Your task to perform on an android device: toggle notification dots Image 0: 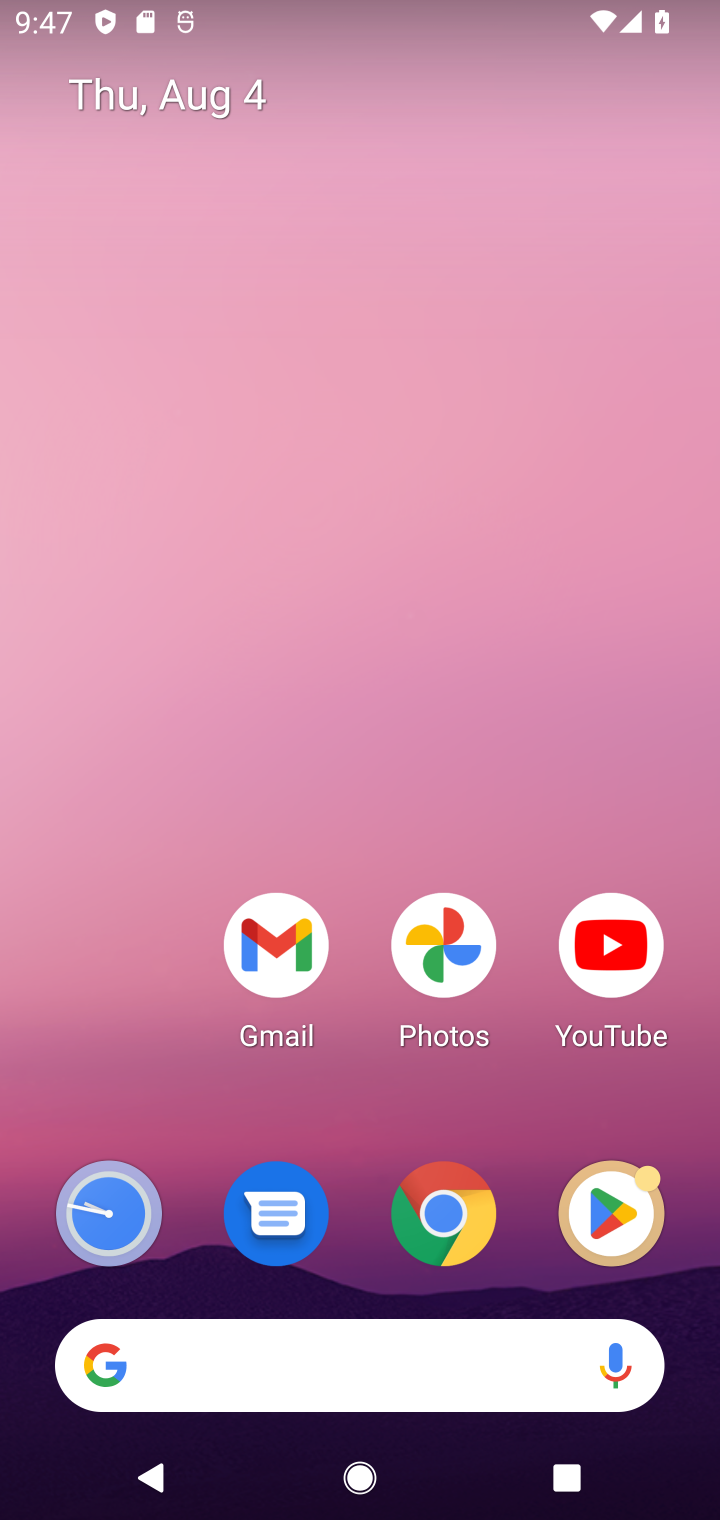
Step 0: drag from (370, 752) to (436, 167)
Your task to perform on an android device: toggle notification dots Image 1: 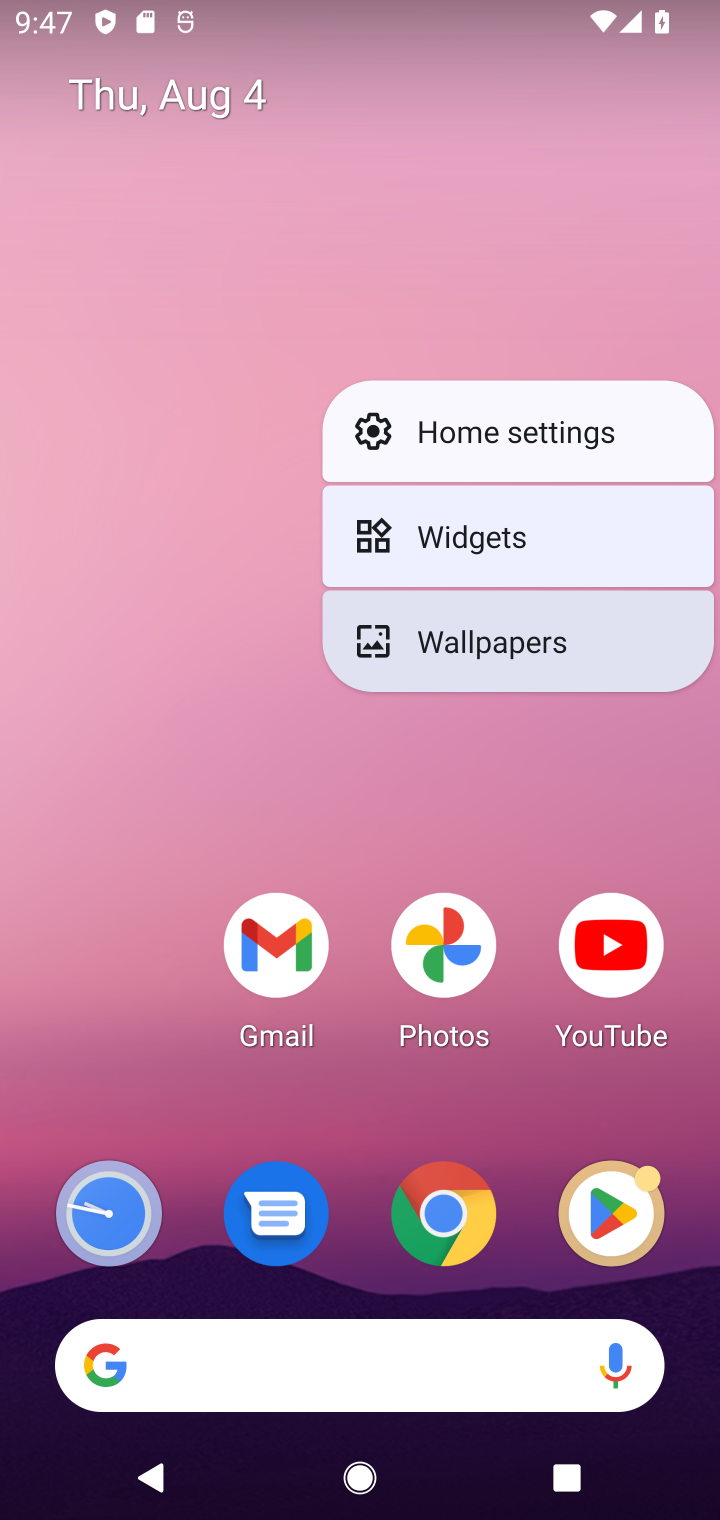
Step 1: drag from (344, 1127) to (280, 66)
Your task to perform on an android device: toggle notification dots Image 2: 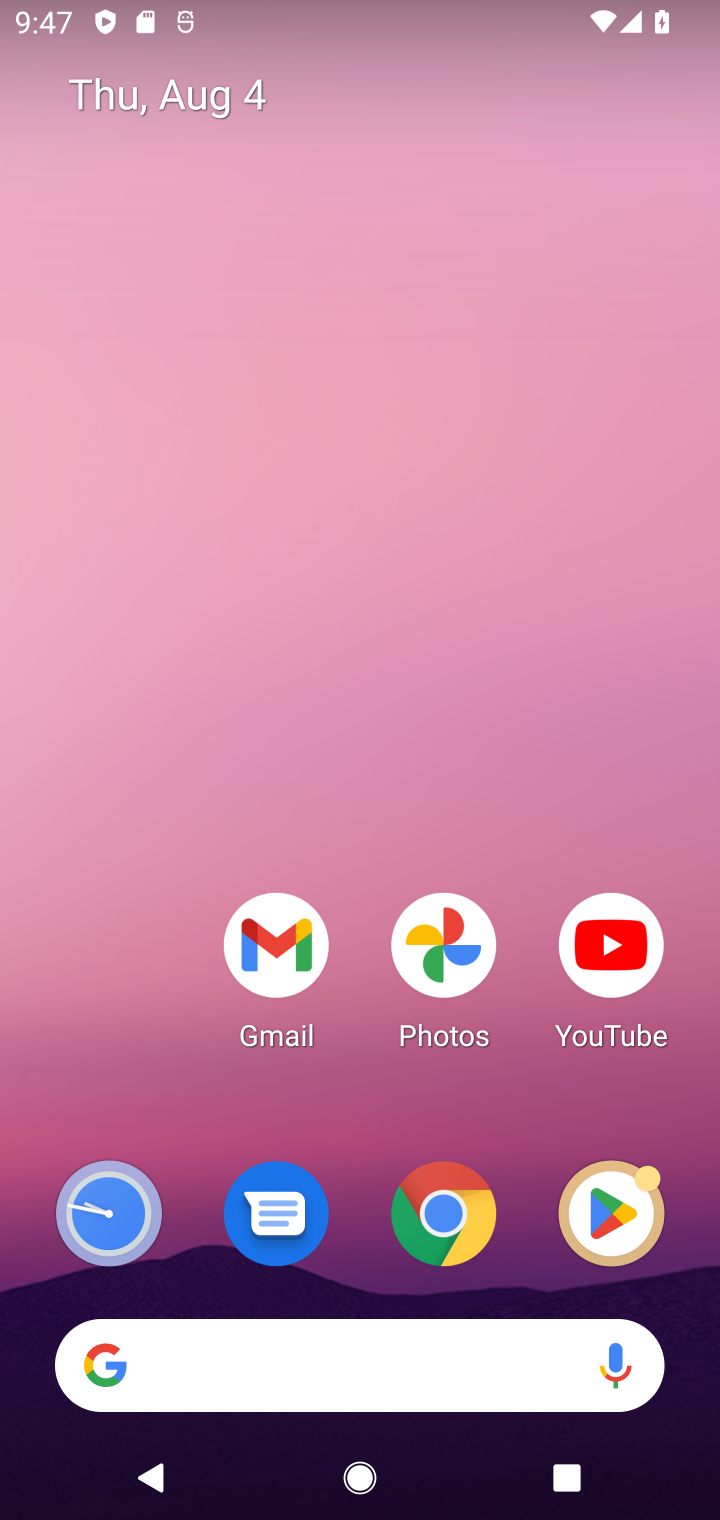
Step 2: drag from (369, 832) to (304, 17)
Your task to perform on an android device: toggle notification dots Image 3: 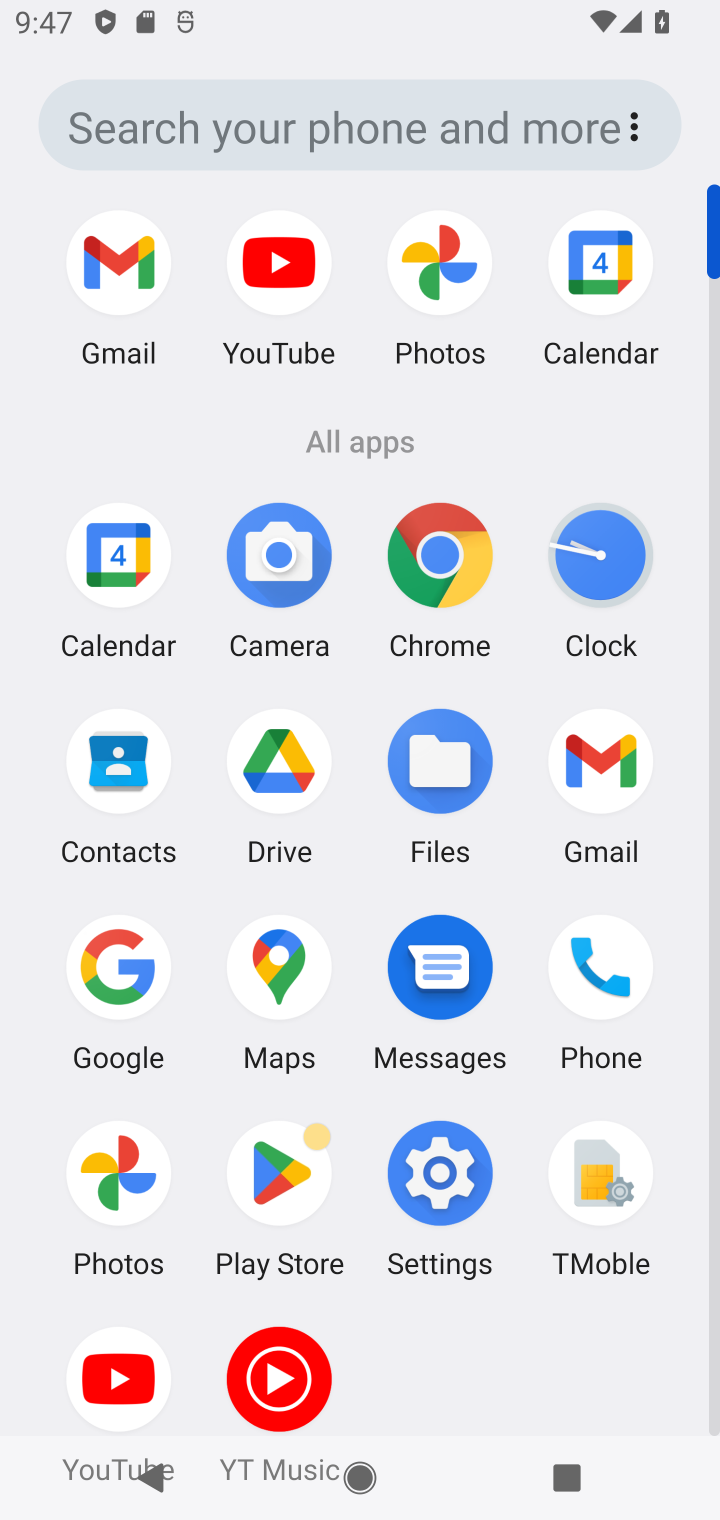
Step 3: click (452, 1226)
Your task to perform on an android device: toggle notification dots Image 4: 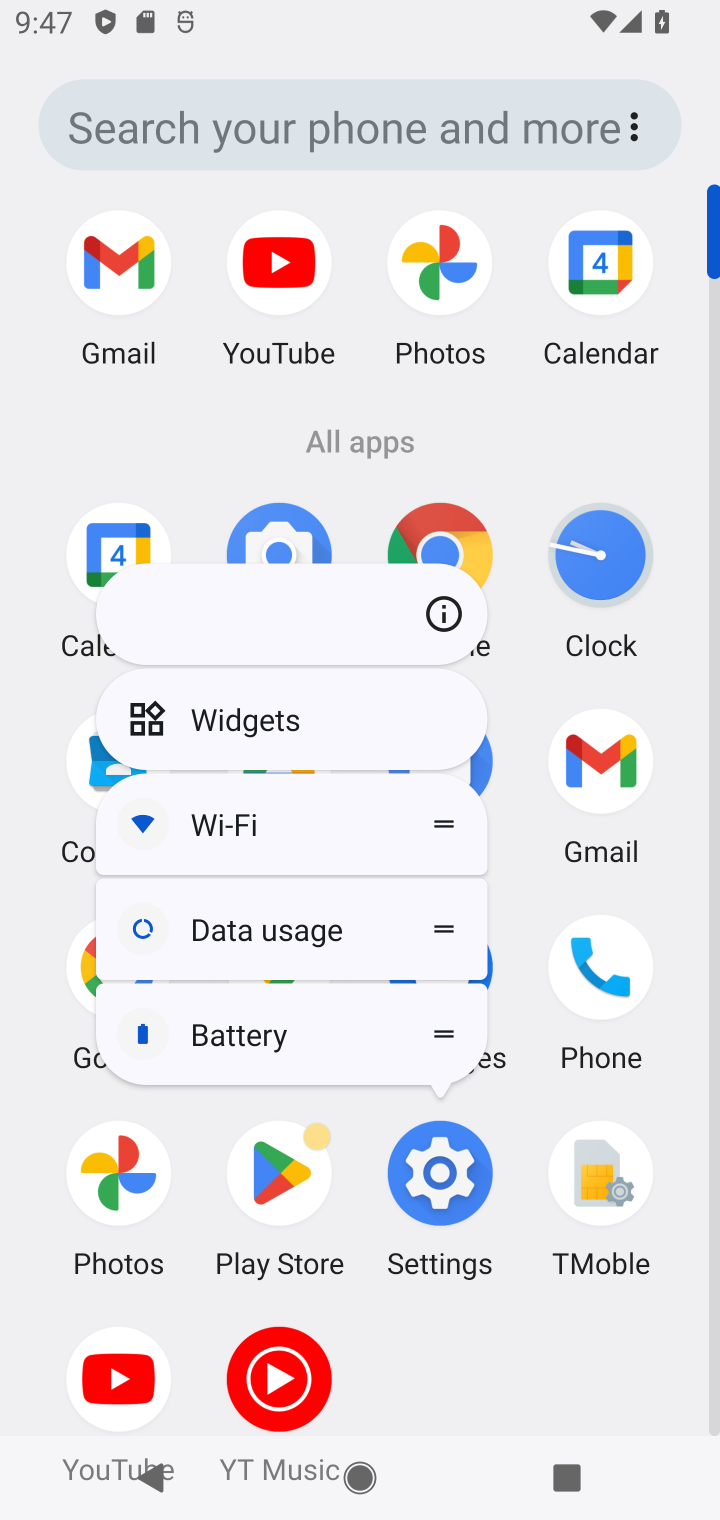
Step 4: click (448, 1218)
Your task to perform on an android device: toggle notification dots Image 5: 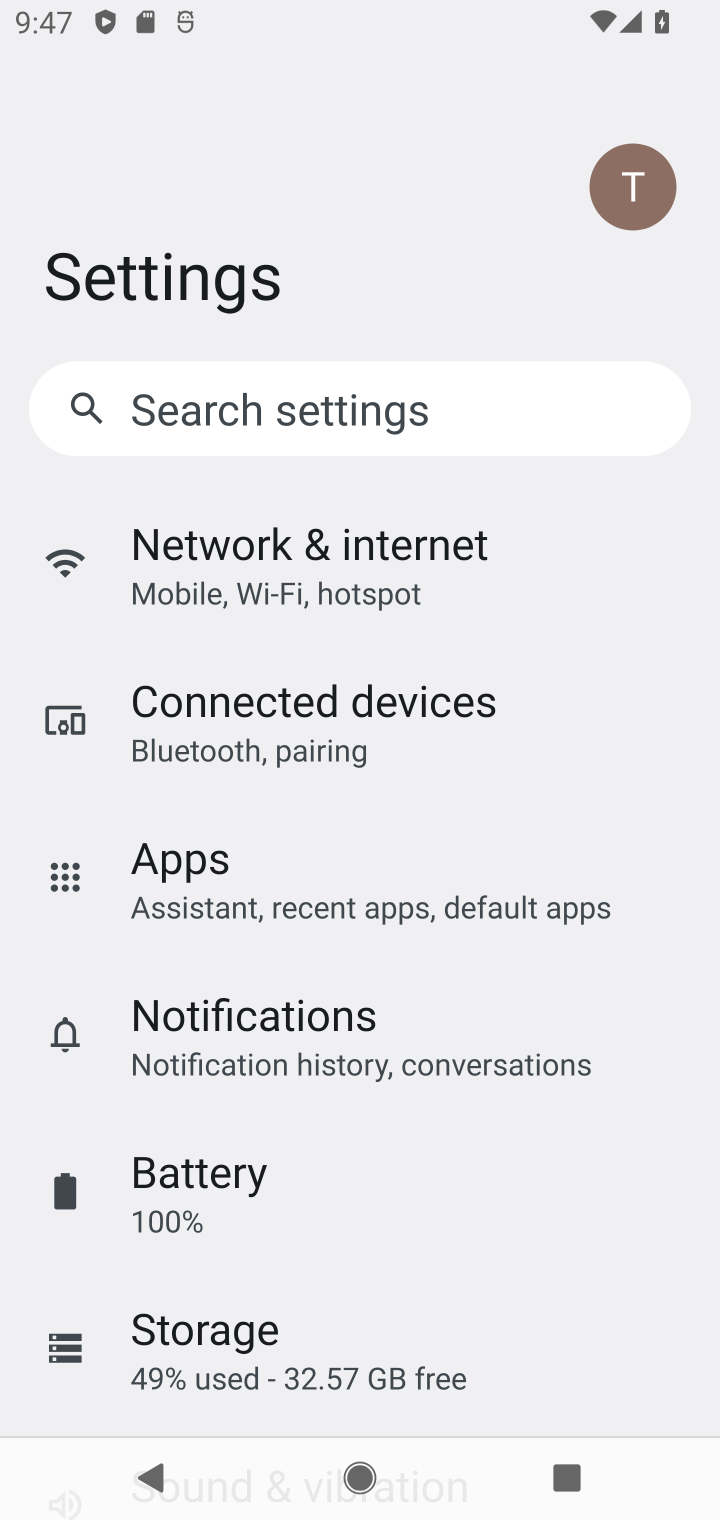
Step 5: click (349, 1072)
Your task to perform on an android device: toggle notification dots Image 6: 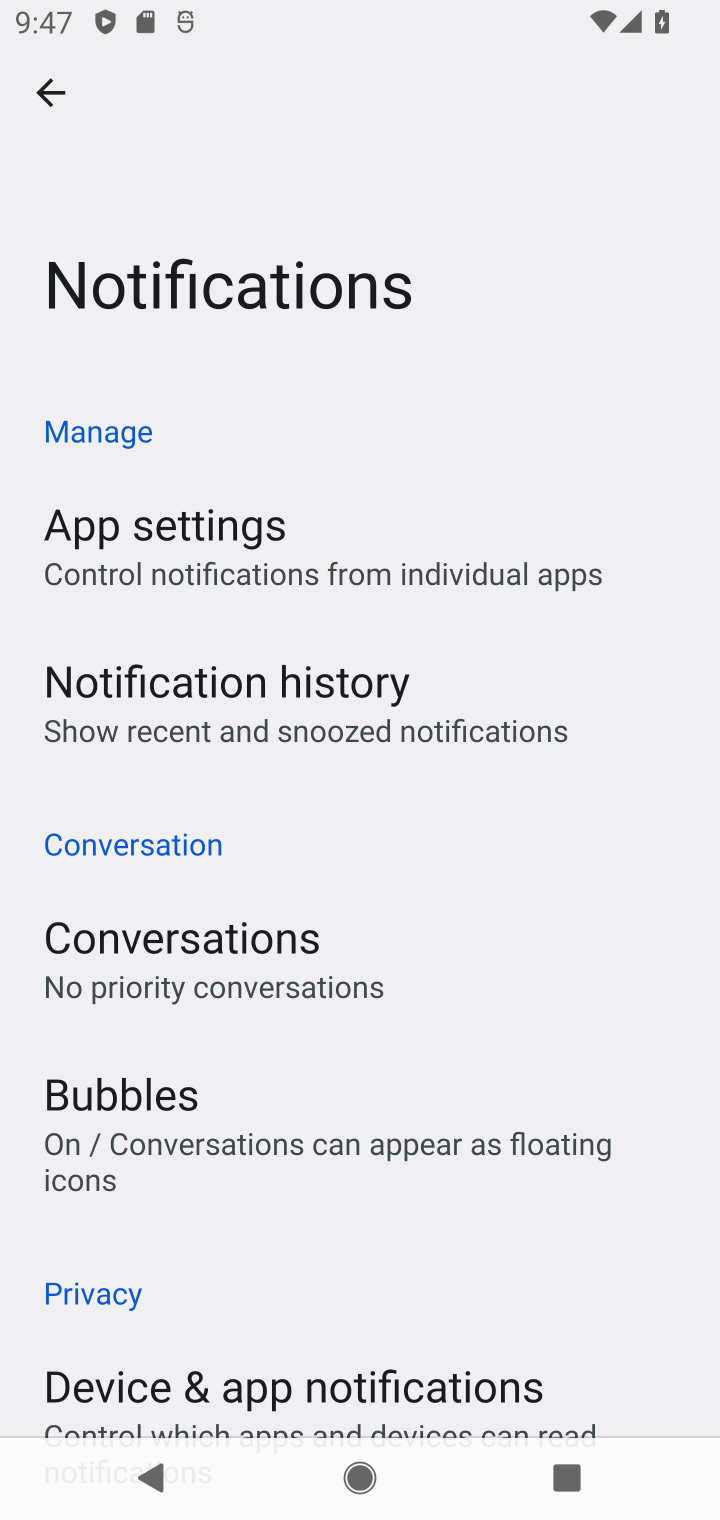
Step 6: drag from (319, 1046) to (353, 217)
Your task to perform on an android device: toggle notification dots Image 7: 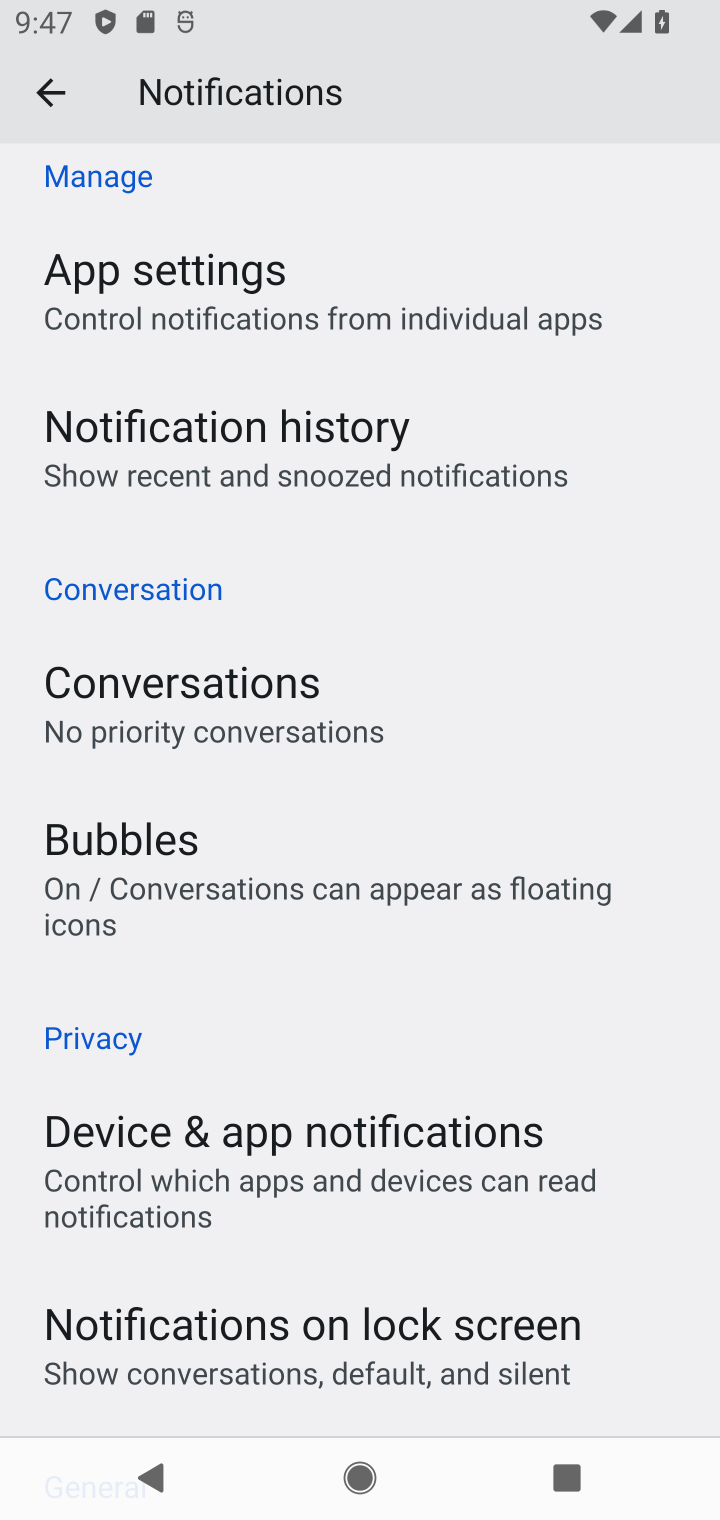
Step 7: drag from (304, 1116) to (313, 553)
Your task to perform on an android device: toggle notification dots Image 8: 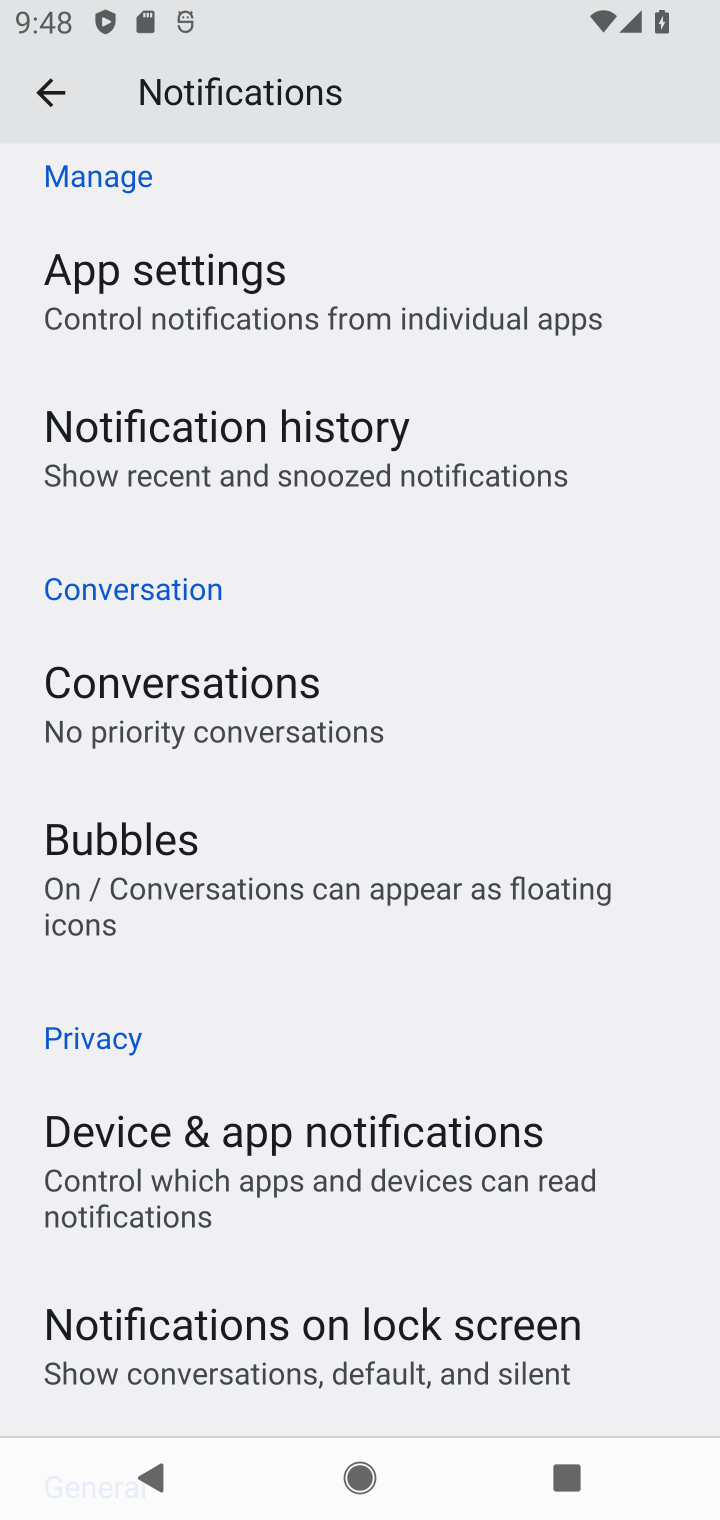
Step 8: drag from (415, 1214) to (420, 4)
Your task to perform on an android device: toggle notification dots Image 9: 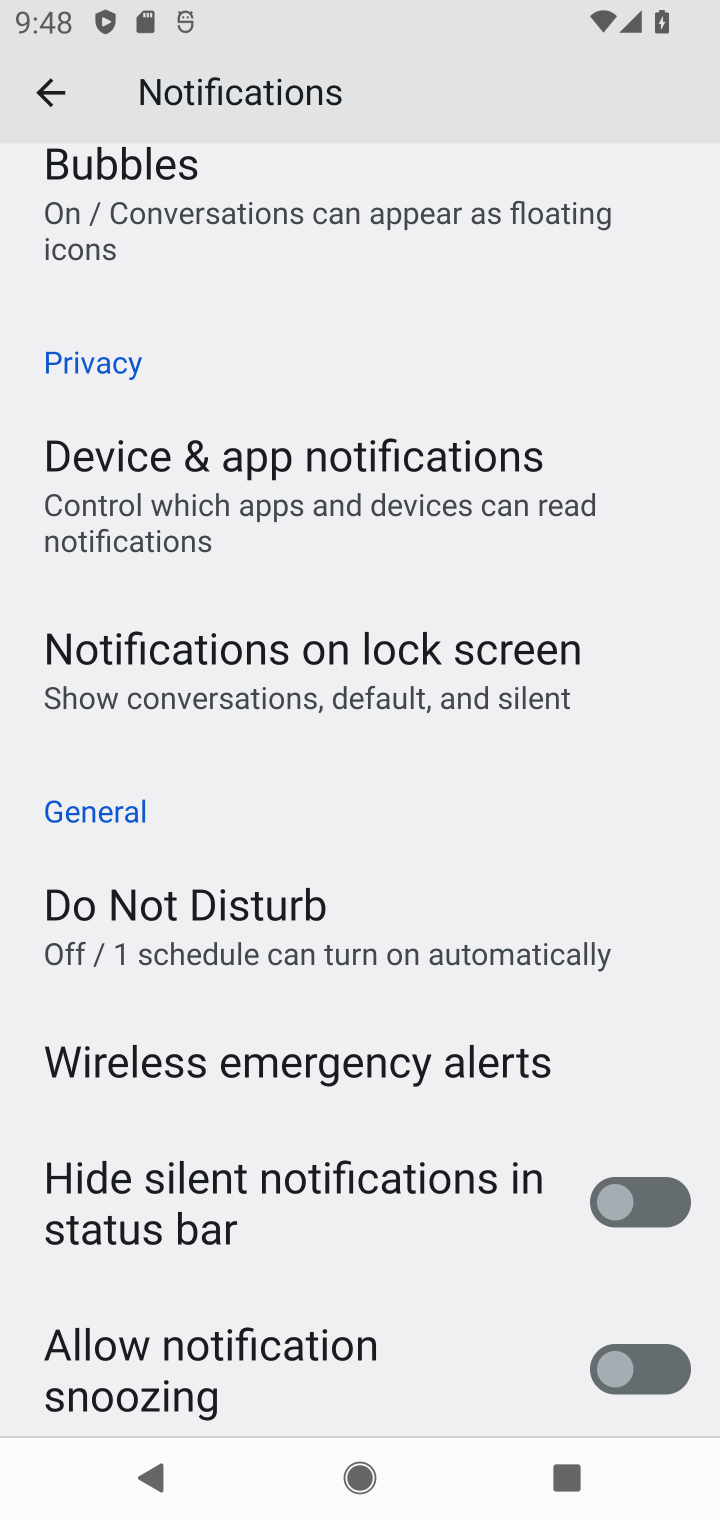
Step 9: drag from (380, 1320) to (390, 559)
Your task to perform on an android device: toggle notification dots Image 10: 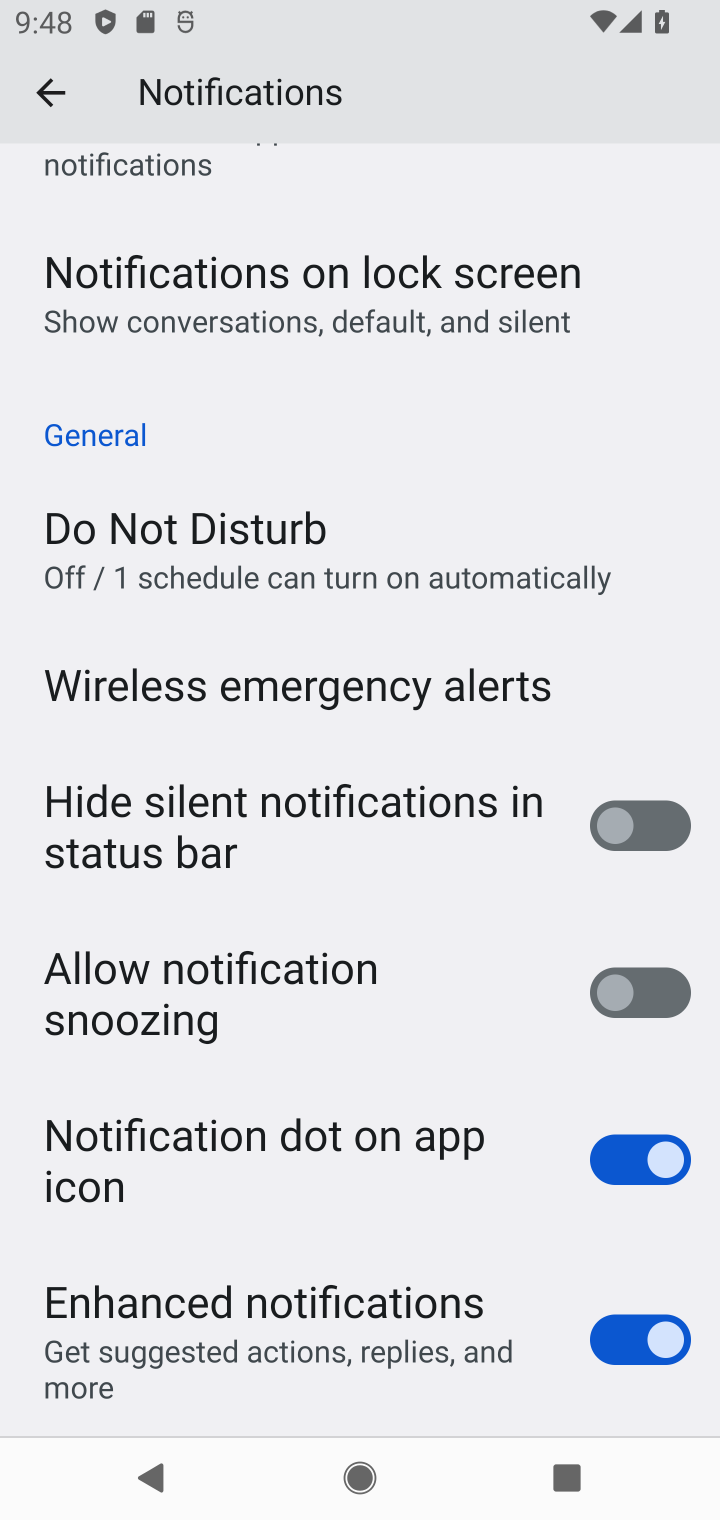
Step 10: click (582, 1156)
Your task to perform on an android device: toggle notification dots Image 11: 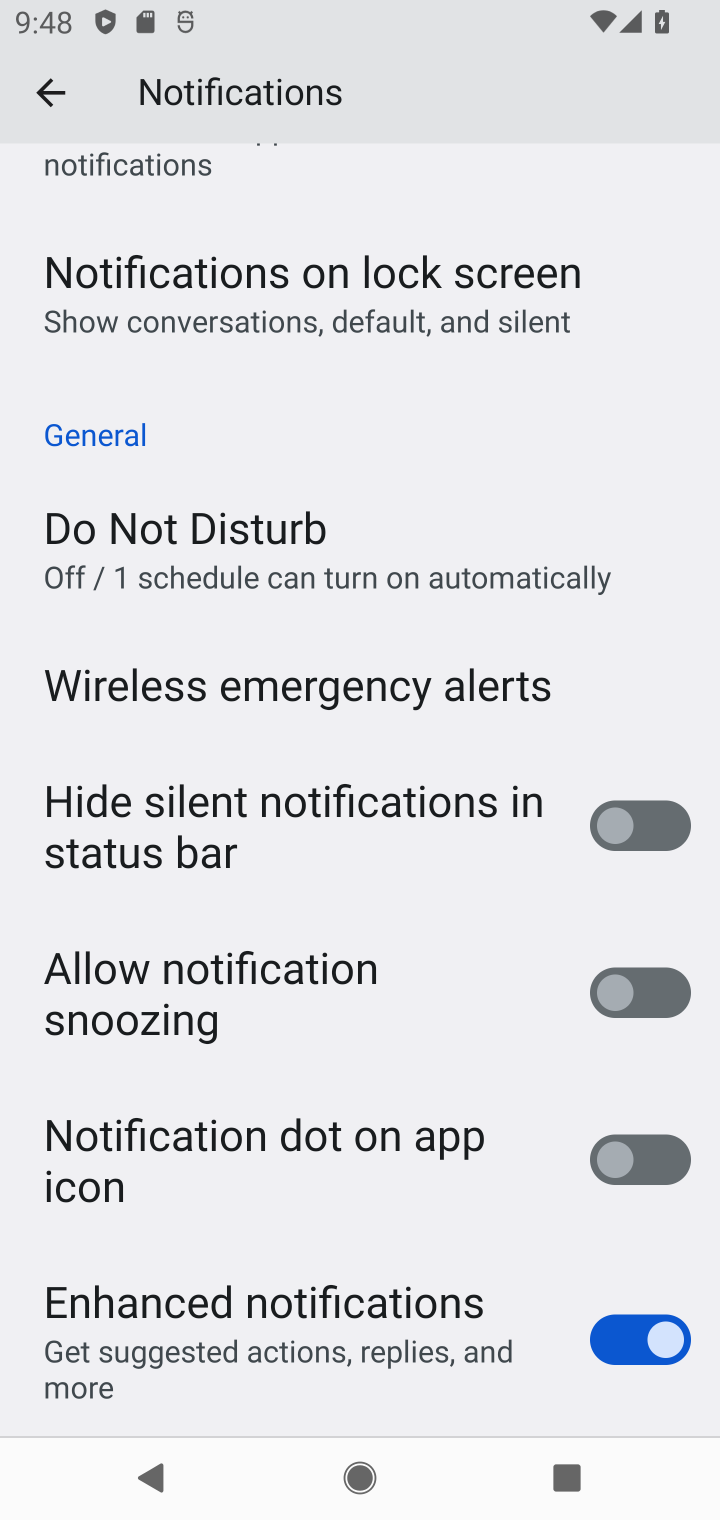
Step 11: task complete